Your task to perform on an android device: Is it going to rain this weekend? Image 0: 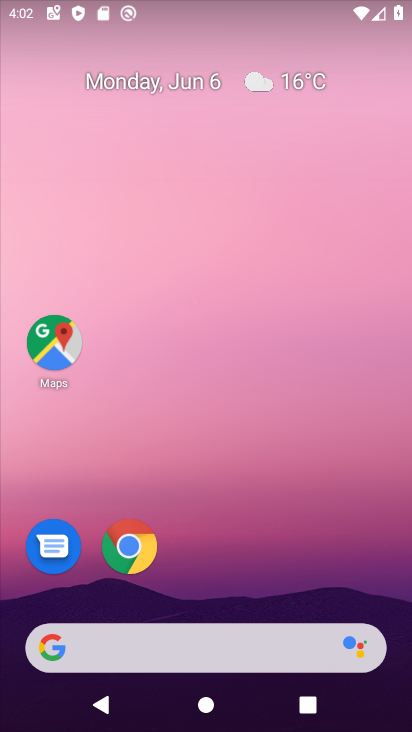
Step 0: drag from (279, 375) to (51, 51)
Your task to perform on an android device: Is it going to rain this weekend? Image 1: 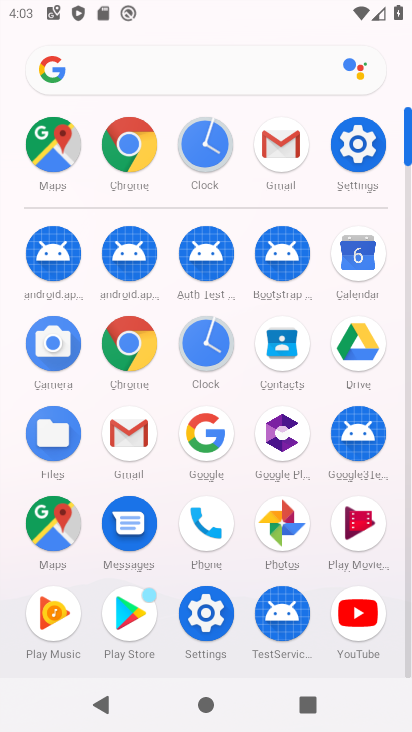
Step 1: press home button
Your task to perform on an android device: Is it going to rain this weekend? Image 2: 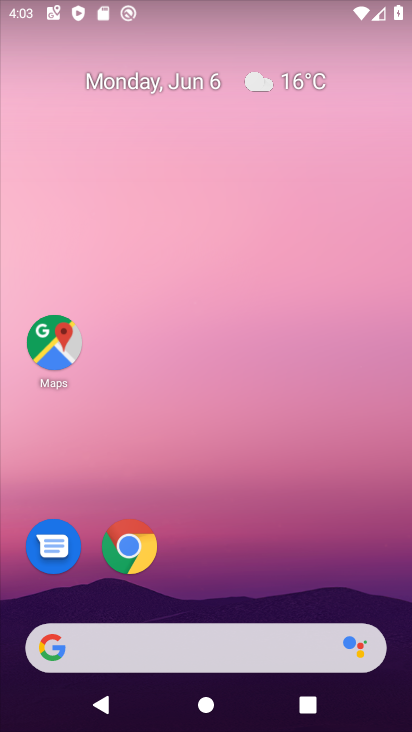
Step 2: click (294, 81)
Your task to perform on an android device: Is it going to rain this weekend? Image 3: 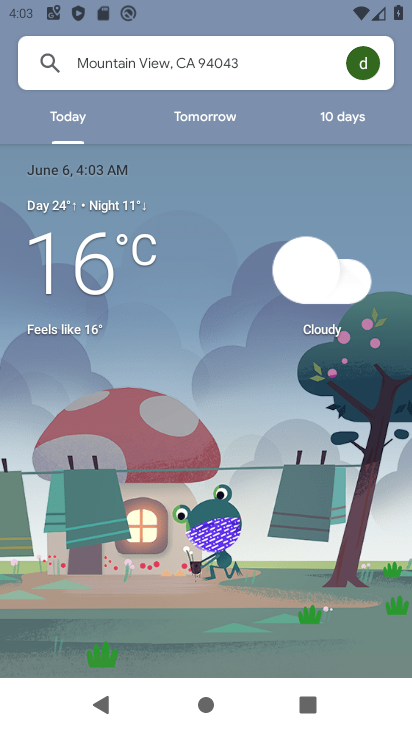
Step 3: click (336, 114)
Your task to perform on an android device: Is it going to rain this weekend? Image 4: 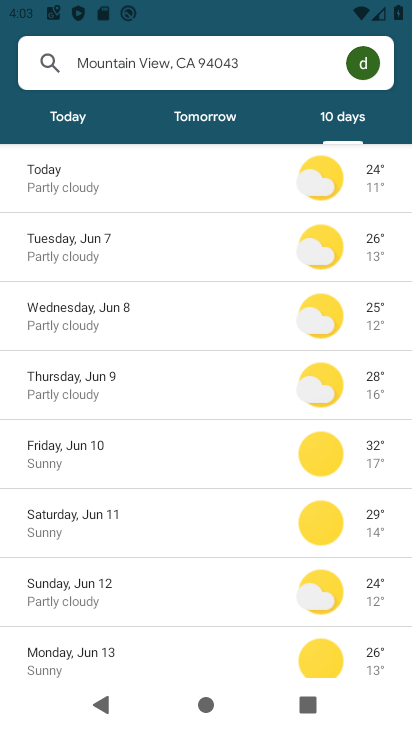
Step 4: task complete